Your task to perform on an android device: open app "Roku - Official Remote Control" (install if not already installed), go to login, and select forgot password Image 0: 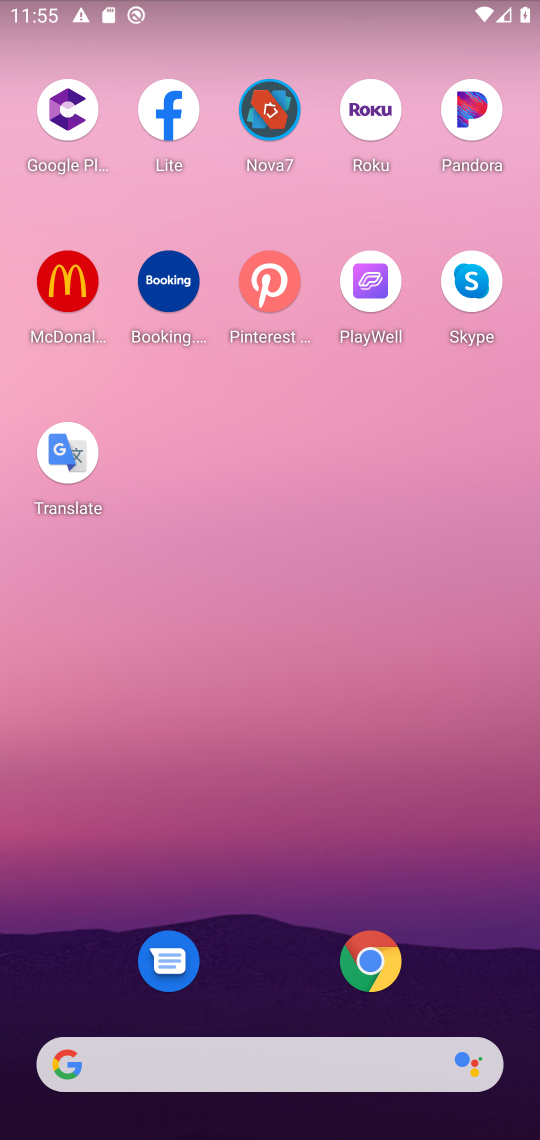
Step 0: drag from (473, 857) to (456, 121)
Your task to perform on an android device: open app "Roku - Official Remote Control" (install if not already installed), go to login, and select forgot password Image 1: 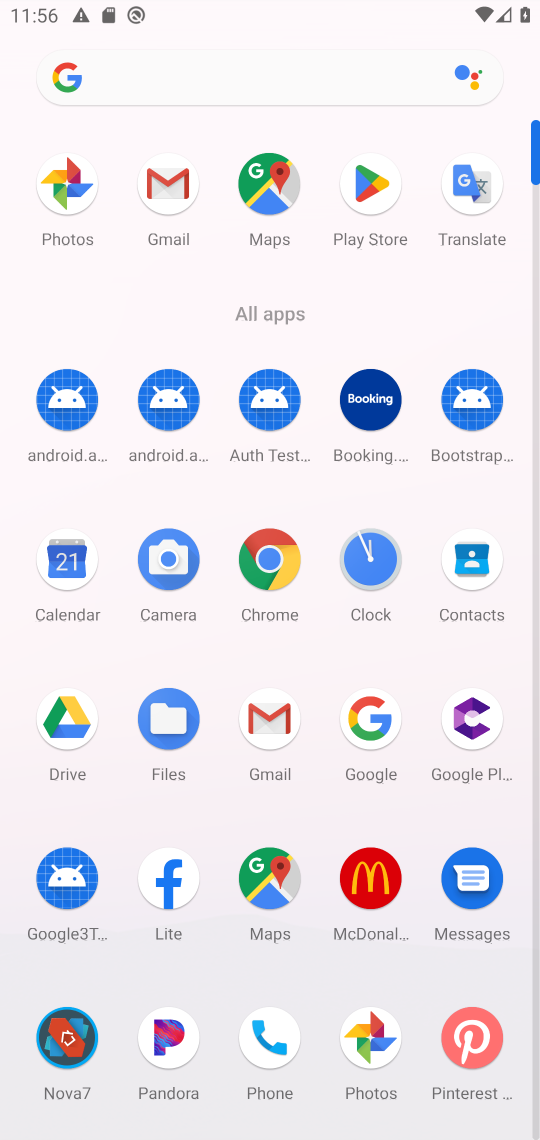
Step 1: click (377, 196)
Your task to perform on an android device: open app "Roku - Official Remote Control" (install if not already installed), go to login, and select forgot password Image 2: 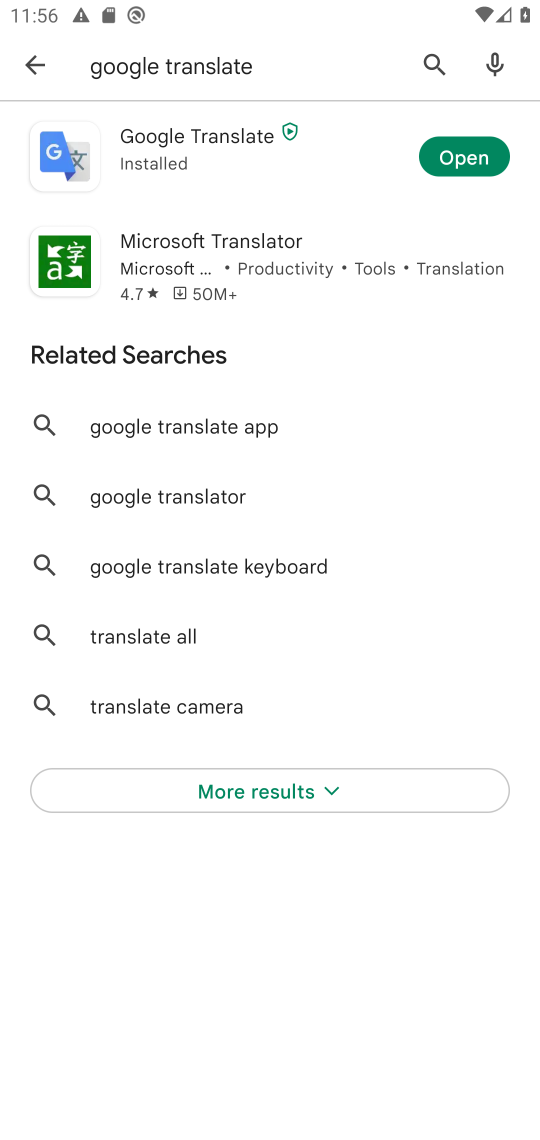
Step 2: press back button
Your task to perform on an android device: open app "Roku - Official Remote Control" (install if not already installed), go to login, and select forgot password Image 3: 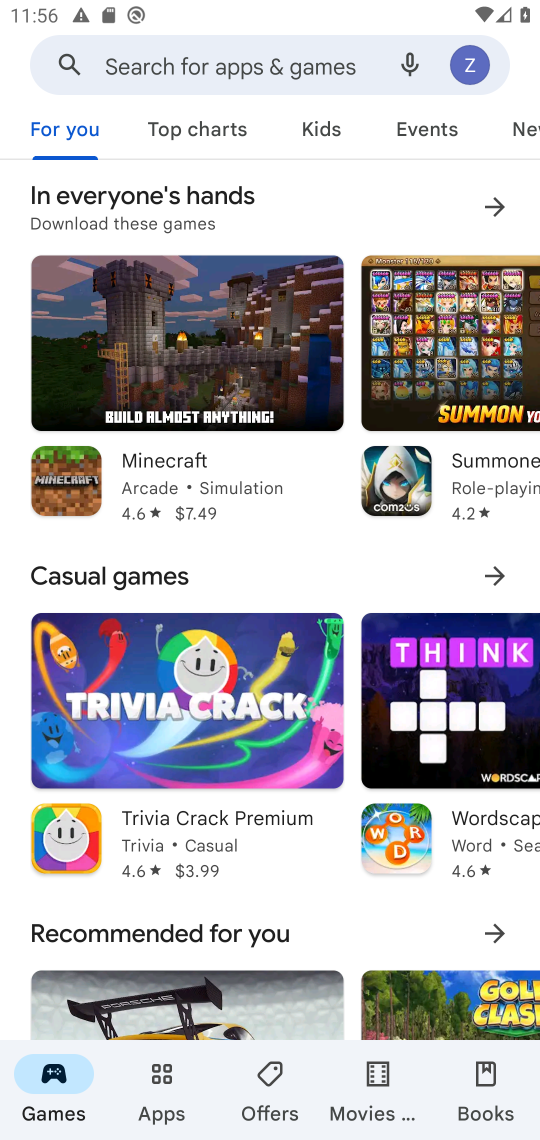
Step 3: click (236, 67)
Your task to perform on an android device: open app "Roku - Official Remote Control" (install if not already installed), go to login, and select forgot password Image 4: 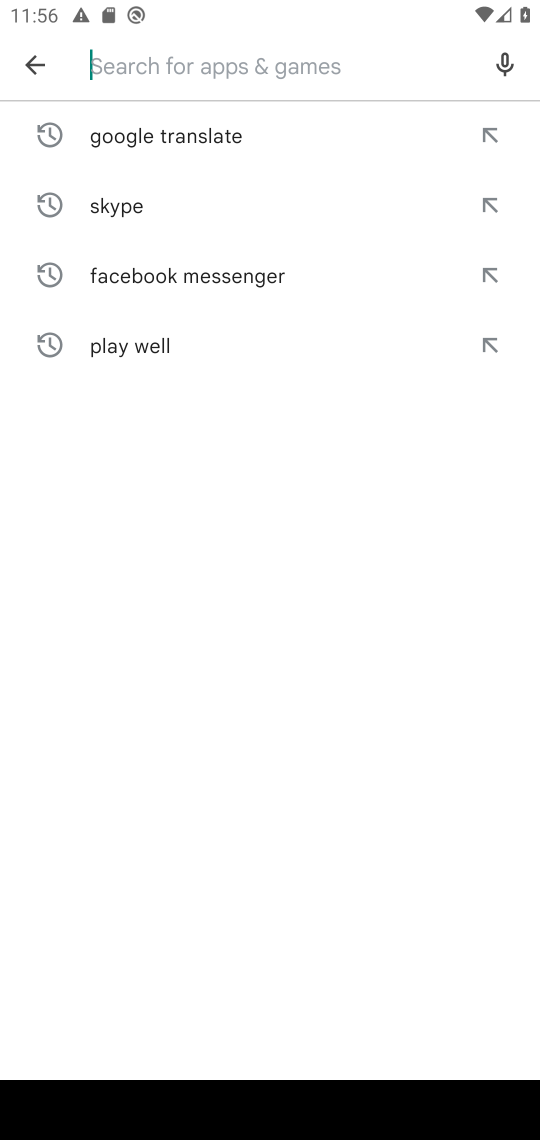
Step 4: type "Roku - Official Remote Control"
Your task to perform on an android device: open app "Roku - Official Remote Control" (install if not already installed), go to login, and select forgot password Image 5: 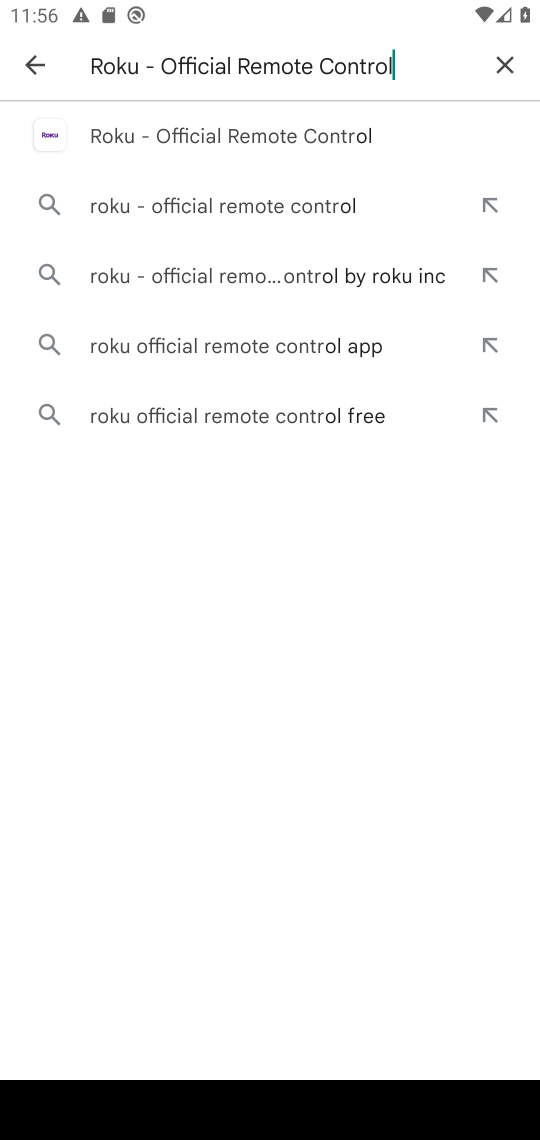
Step 5: press enter
Your task to perform on an android device: open app "Roku - Official Remote Control" (install if not already installed), go to login, and select forgot password Image 6: 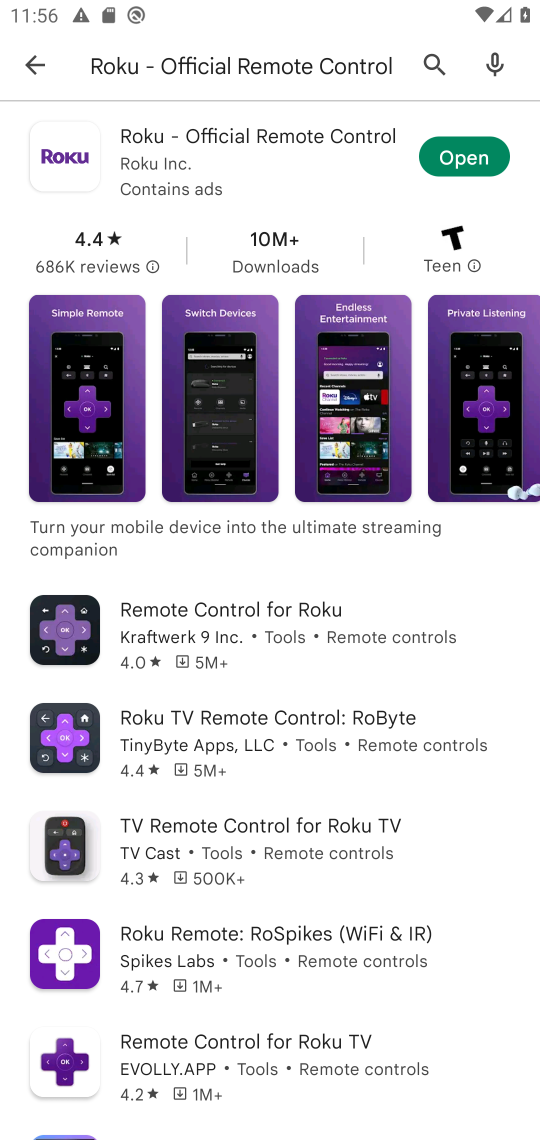
Step 6: click (458, 154)
Your task to perform on an android device: open app "Roku - Official Remote Control" (install if not already installed), go to login, and select forgot password Image 7: 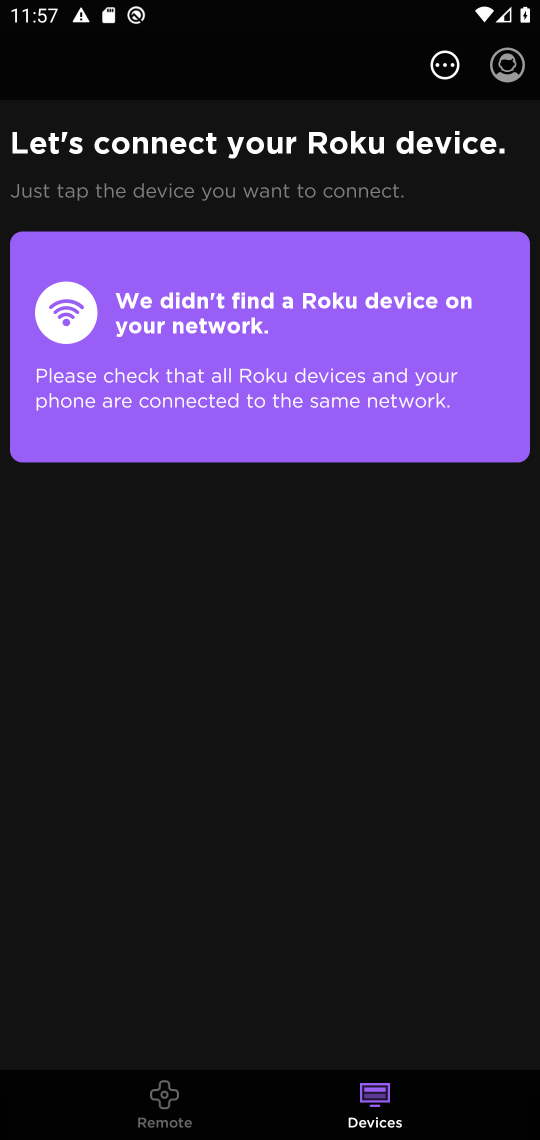
Step 7: click (520, 58)
Your task to perform on an android device: open app "Roku - Official Remote Control" (install if not already installed), go to login, and select forgot password Image 8: 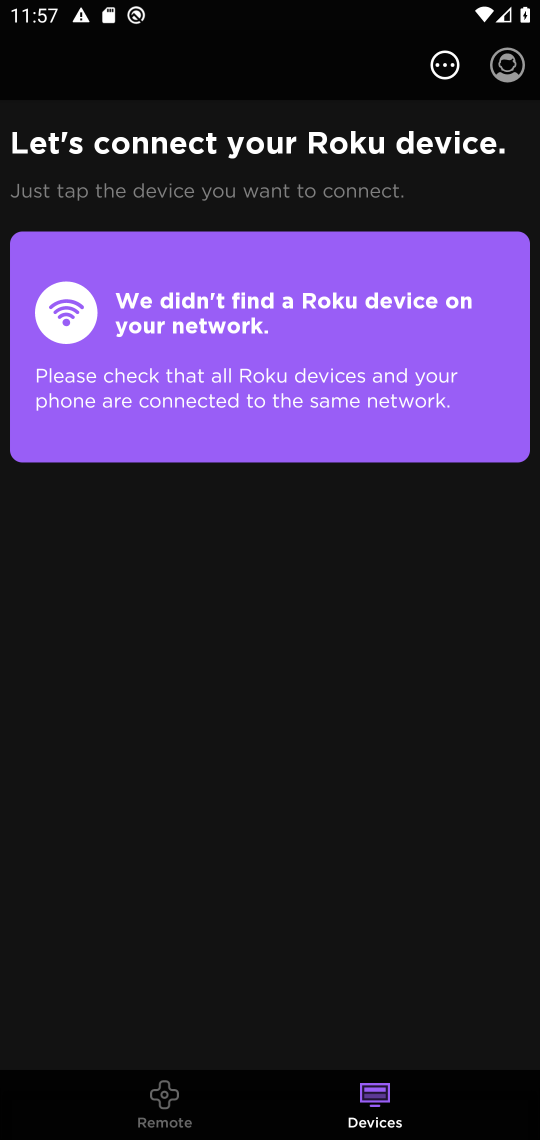
Step 8: click (513, 63)
Your task to perform on an android device: open app "Roku - Official Remote Control" (install if not already installed), go to login, and select forgot password Image 9: 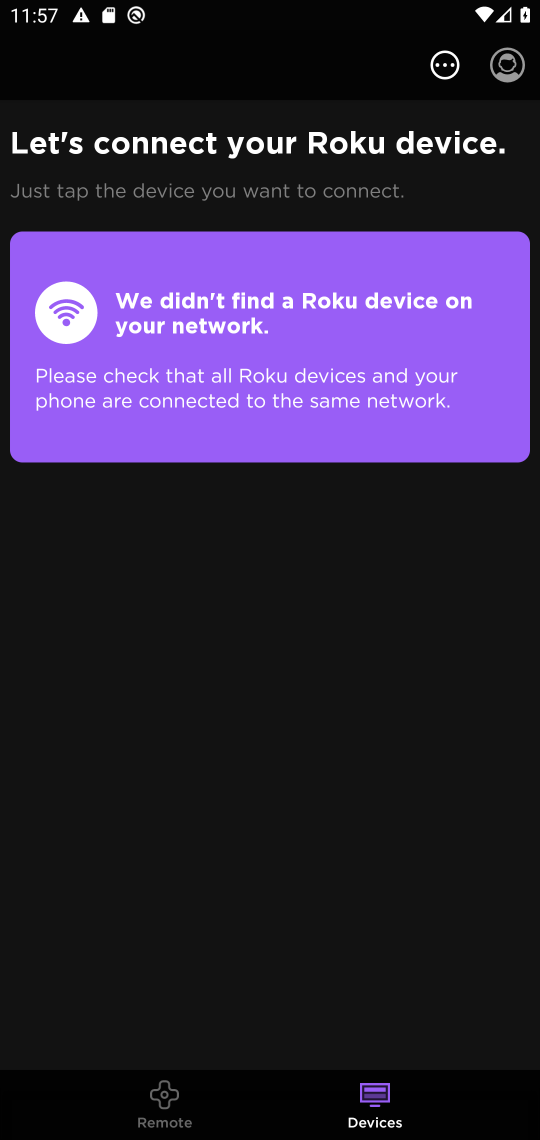
Step 9: click (506, 72)
Your task to perform on an android device: open app "Roku - Official Remote Control" (install if not already installed), go to login, and select forgot password Image 10: 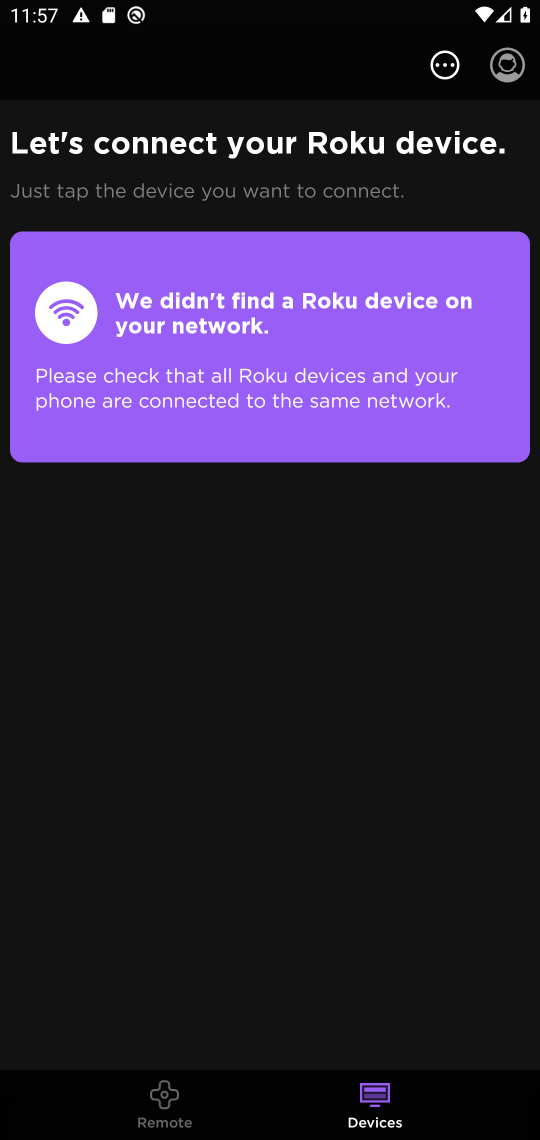
Step 10: click (506, 72)
Your task to perform on an android device: open app "Roku - Official Remote Control" (install if not already installed), go to login, and select forgot password Image 11: 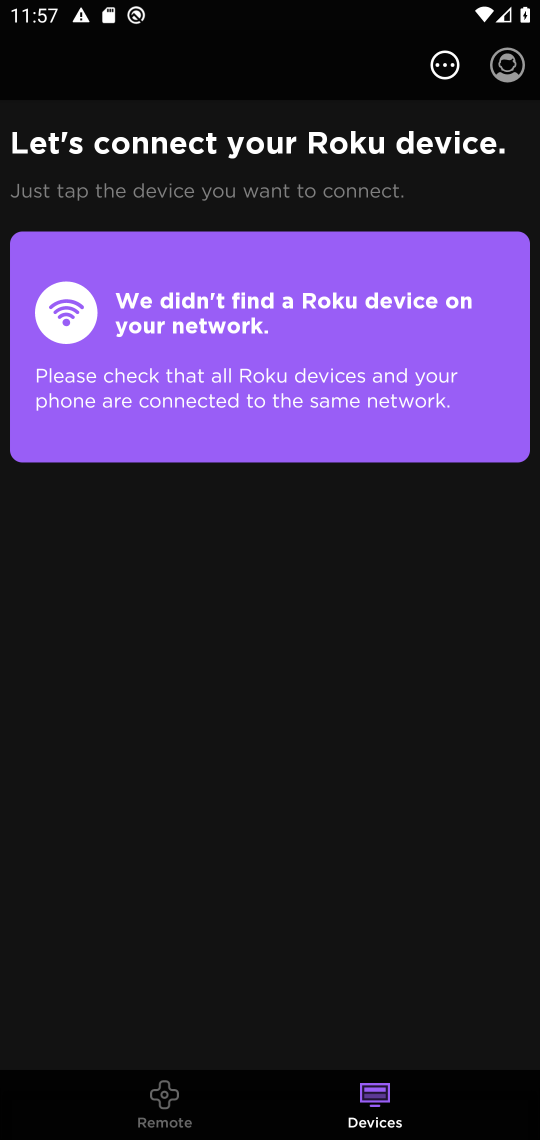
Step 11: click (506, 72)
Your task to perform on an android device: open app "Roku - Official Remote Control" (install if not already installed), go to login, and select forgot password Image 12: 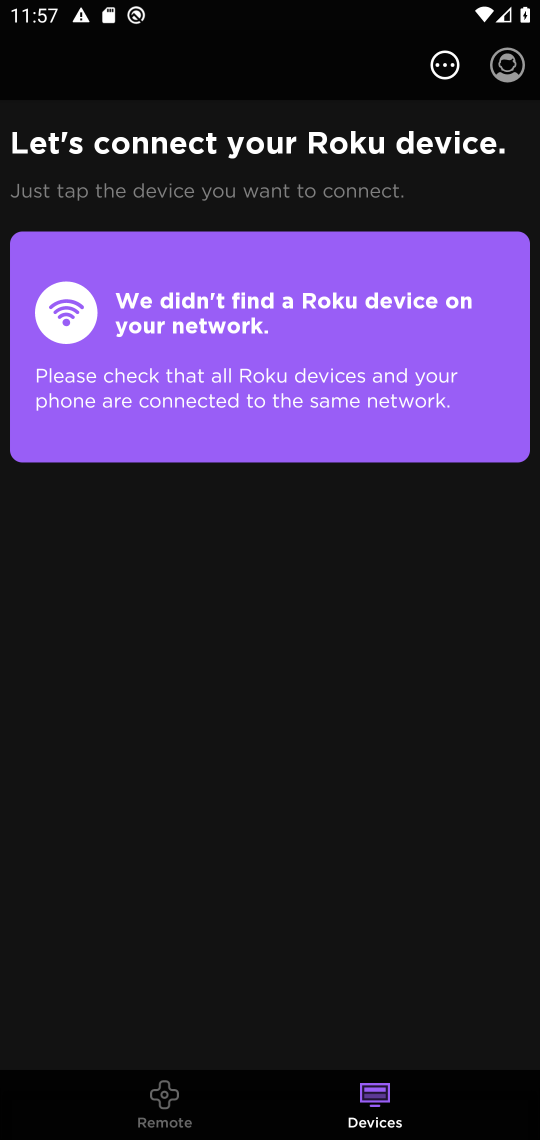
Step 12: task complete